Your task to perform on an android device: Open Google Chrome and click the shortcut for Amazon.com Image 0: 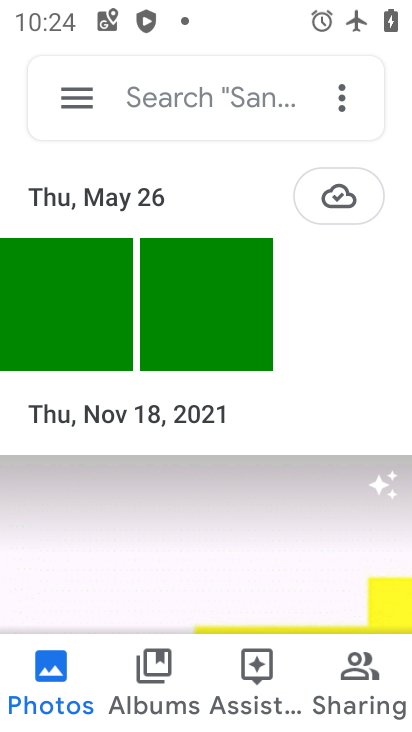
Step 0: press home button
Your task to perform on an android device: Open Google Chrome and click the shortcut for Amazon.com Image 1: 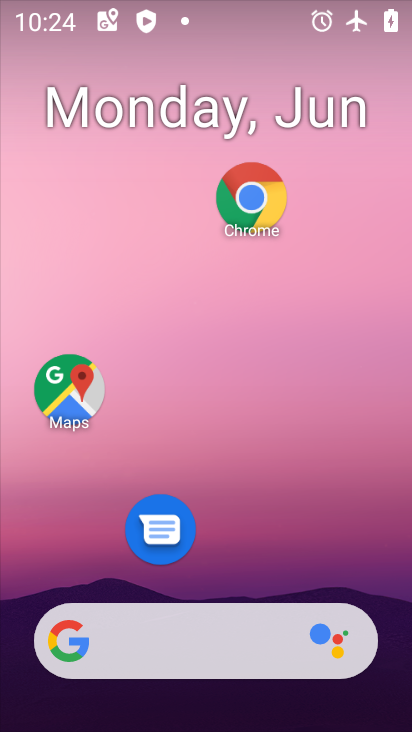
Step 1: click (259, 198)
Your task to perform on an android device: Open Google Chrome and click the shortcut for Amazon.com Image 2: 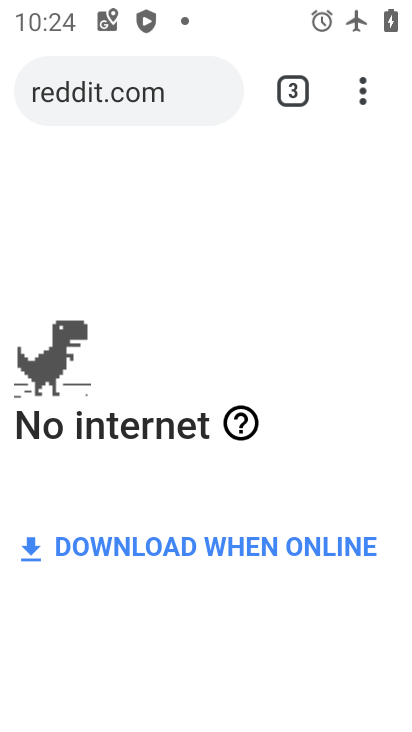
Step 2: click (368, 94)
Your task to perform on an android device: Open Google Chrome and click the shortcut for Amazon.com Image 3: 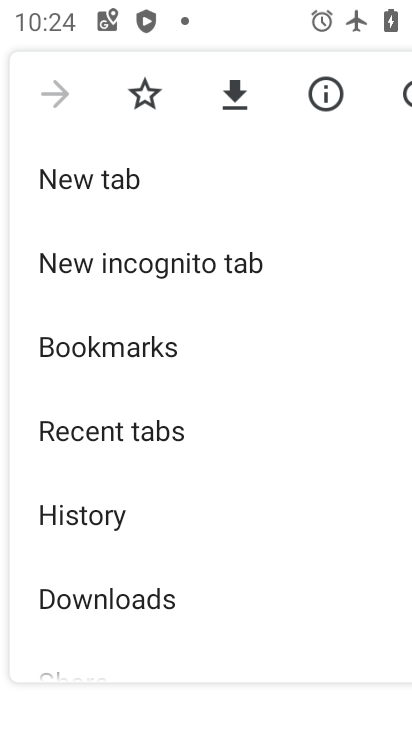
Step 3: click (50, 95)
Your task to perform on an android device: Open Google Chrome and click the shortcut for Amazon.com Image 4: 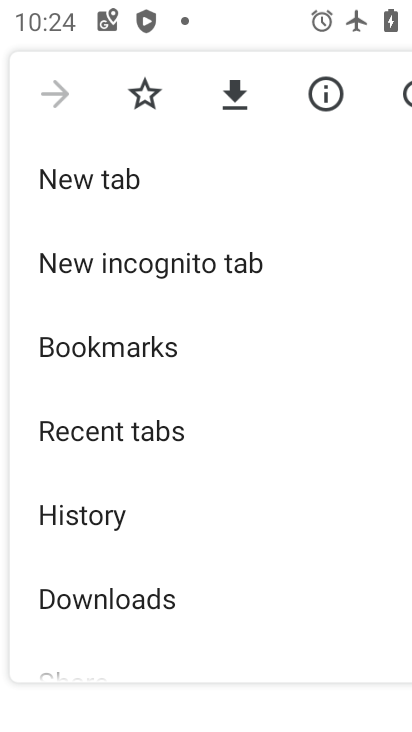
Step 4: task complete